Your task to perform on an android device: toggle improve location accuracy Image 0: 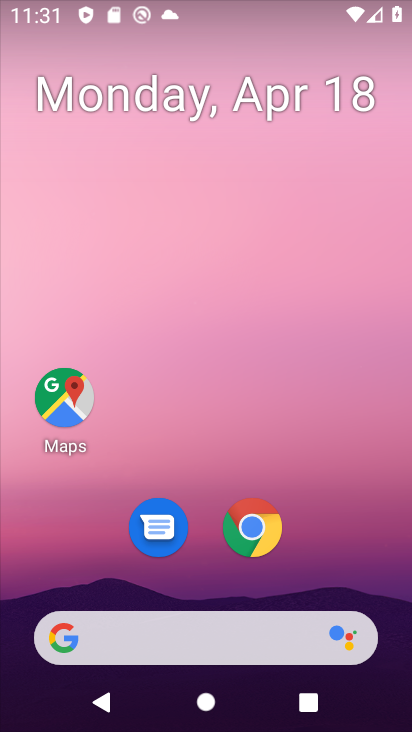
Step 0: drag from (214, 611) to (405, 253)
Your task to perform on an android device: toggle improve location accuracy Image 1: 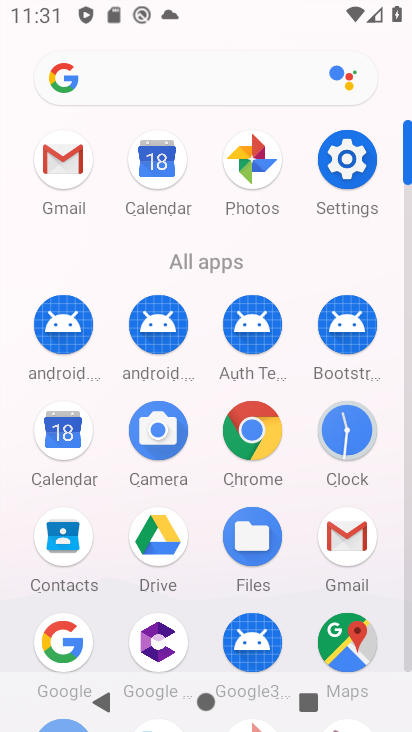
Step 1: click (363, 155)
Your task to perform on an android device: toggle improve location accuracy Image 2: 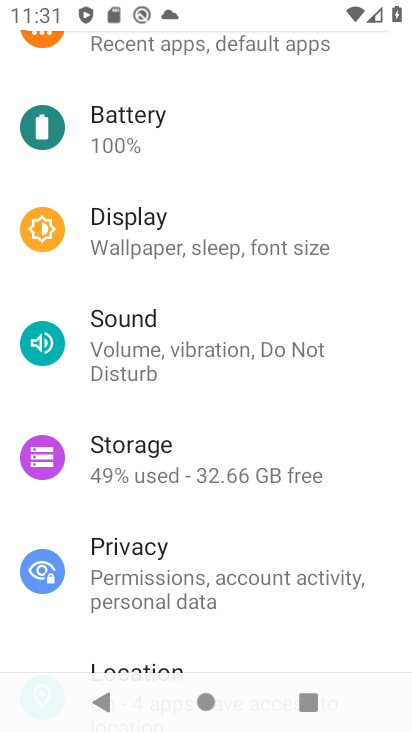
Step 2: drag from (186, 503) to (382, 161)
Your task to perform on an android device: toggle improve location accuracy Image 3: 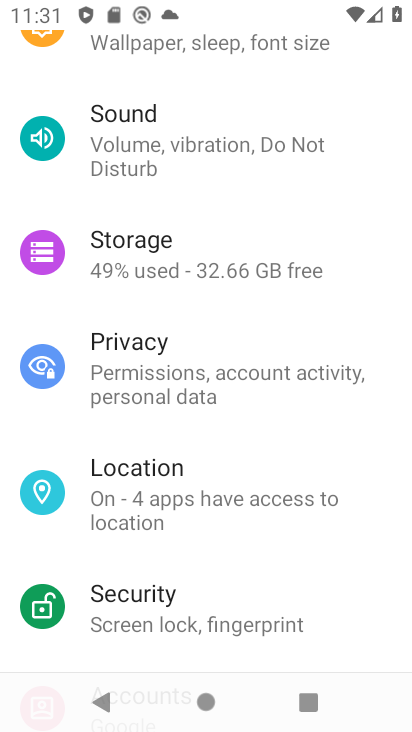
Step 3: click (147, 487)
Your task to perform on an android device: toggle improve location accuracy Image 4: 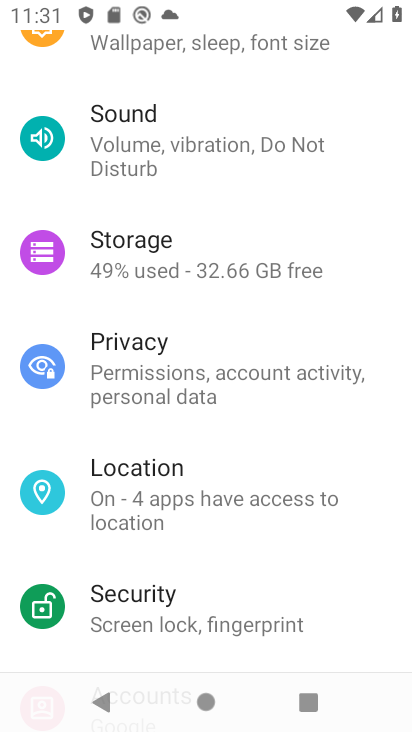
Step 4: click (147, 487)
Your task to perform on an android device: toggle improve location accuracy Image 5: 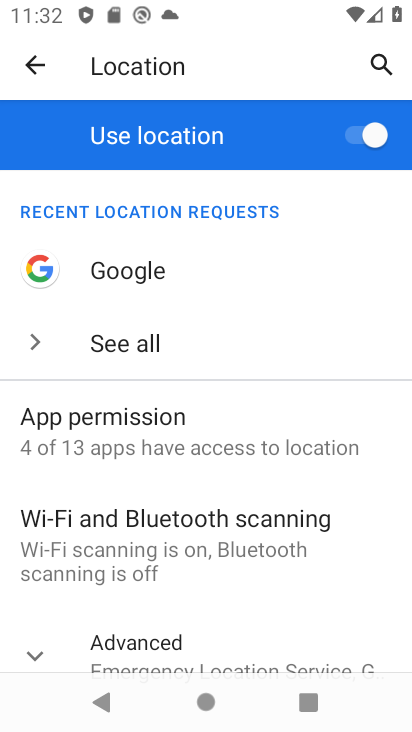
Step 5: drag from (236, 567) to (269, 186)
Your task to perform on an android device: toggle improve location accuracy Image 6: 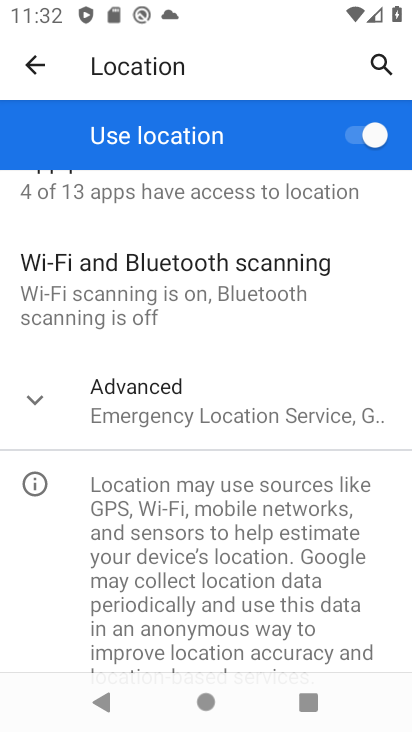
Step 6: click (45, 385)
Your task to perform on an android device: toggle improve location accuracy Image 7: 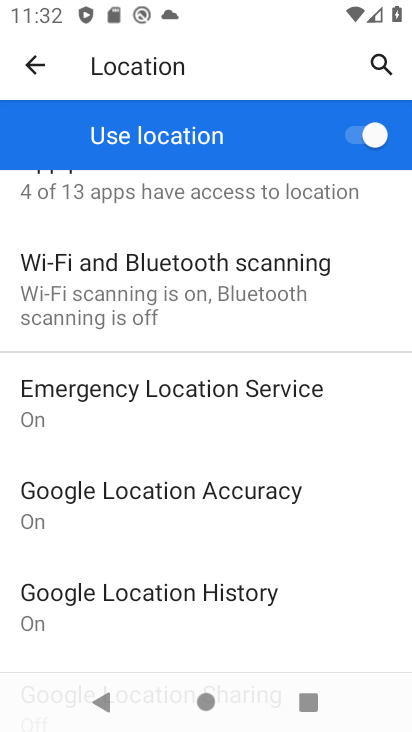
Step 7: drag from (248, 459) to (234, 235)
Your task to perform on an android device: toggle improve location accuracy Image 8: 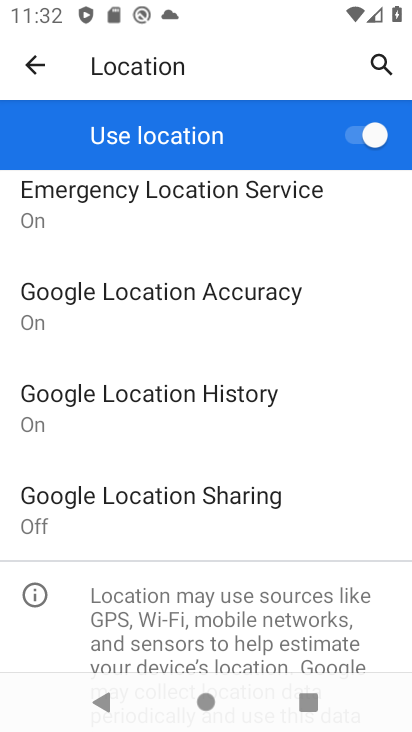
Step 8: click (215, 290)
Your task to perform on an android device: toggle improve location accuracy Image 9: 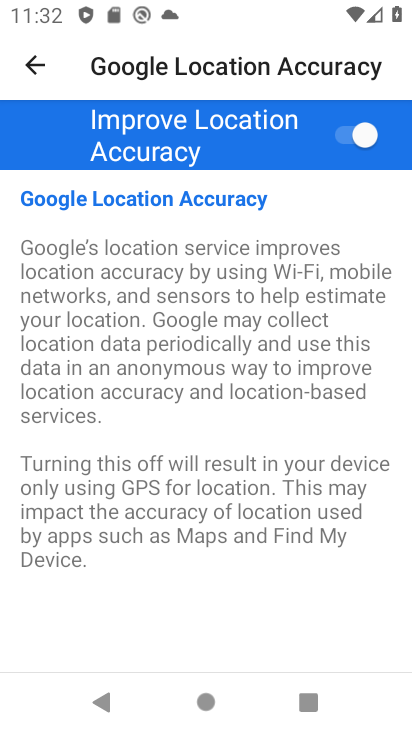
Step 9: click (344, 129)
Your task to perform on an android device: toggle improve location accuracy Image 10: 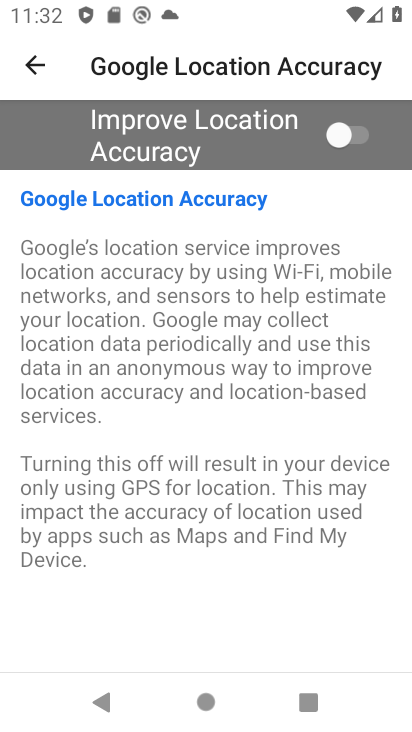
Step 10: task complete